Your task to perform on an android device: When is my next appointment? Image 0: 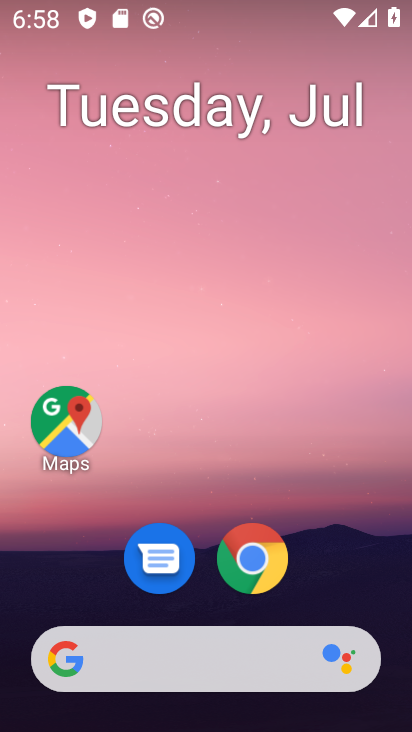
Step 0: drag from (90, 521) to (142, 14)
Your task to perform on an android device: When is my next appointment? Image 1: 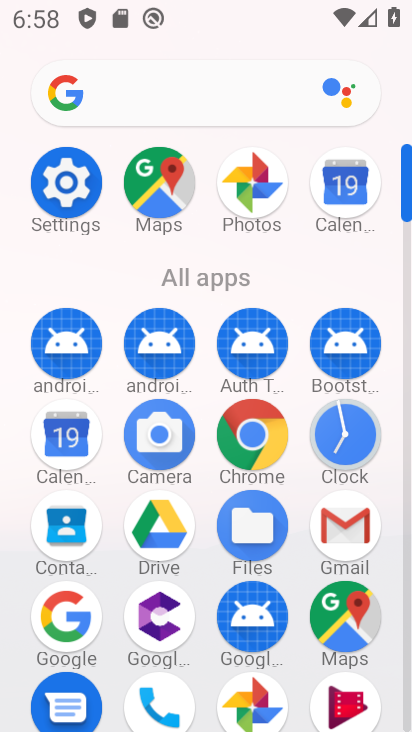
Step 1: click (360, 182)
Your task to perform on an android device: When is my next appointment? Image 2: 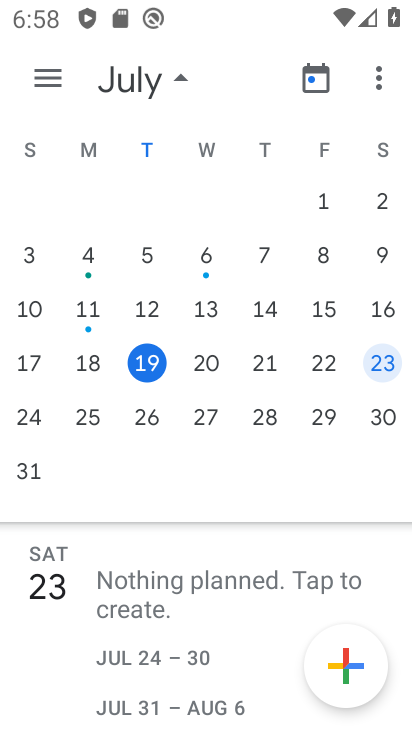
Step 2: click (137, 373)
Your task to perform on an android device: When is my next appointment? Image 3: 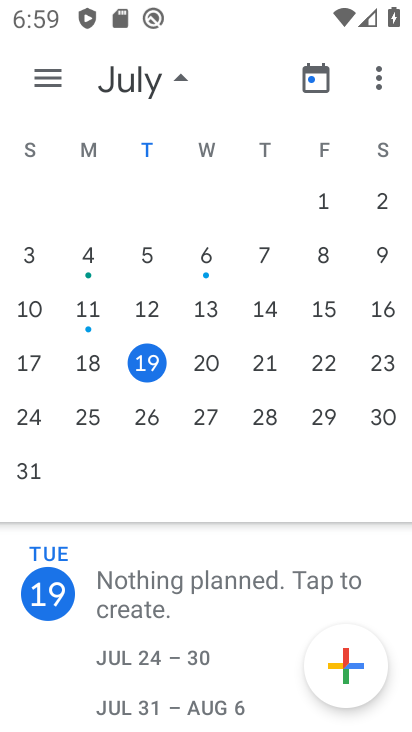
Step 3: task complete